Your task to perform on an android device: allow notifications from all sites in the chrome app Image 0: 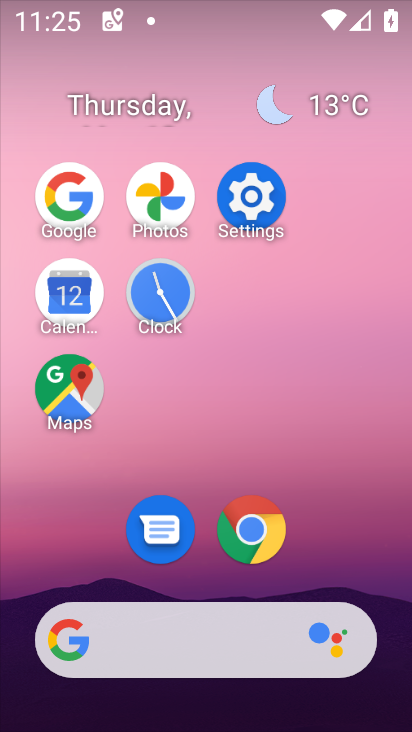
Step 0: click (260, 532)
Your task to perform on an android device: allow notifications from all sites in the chrome app Image 1: 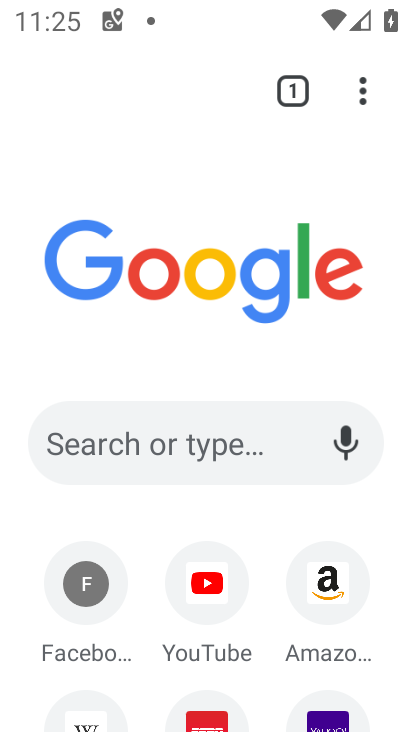
Step 1: click (360, 85)
Your task to perform on an android device: allow notifications from all sites in the chrome app Image 2: 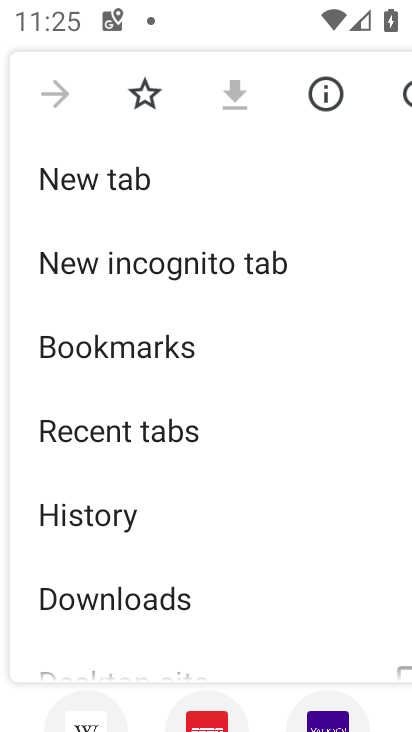
Step 2: drag from (225, 509) to (258, 158)
Your task to perform on an android device: allow notifications from all sites in the chrome app Image 3: 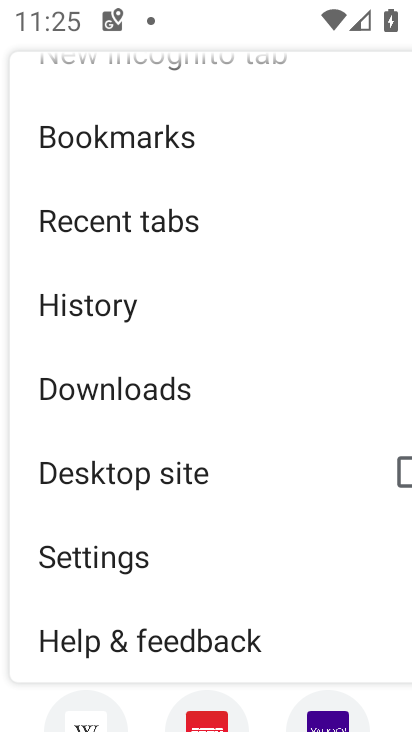
Step 3: click (215, 543)
Your task to perform on an android device: allow notifications from all sites in the chrome app Image 4: 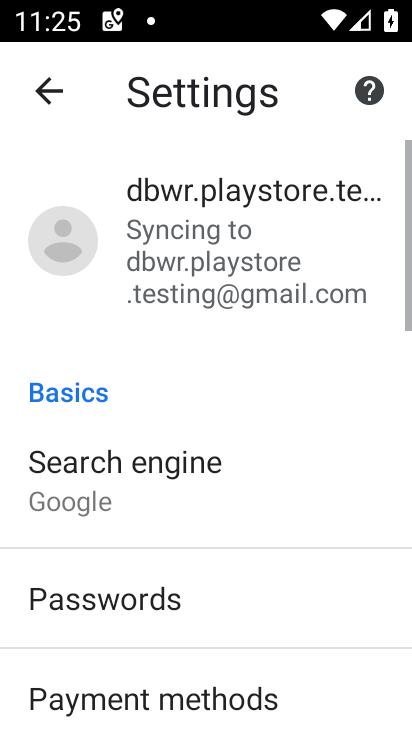
Step 4: drag from (215, 543) to (203, 165)
Your task to perform on an android device: allow notifications from all sites in the chrome app Image 5: 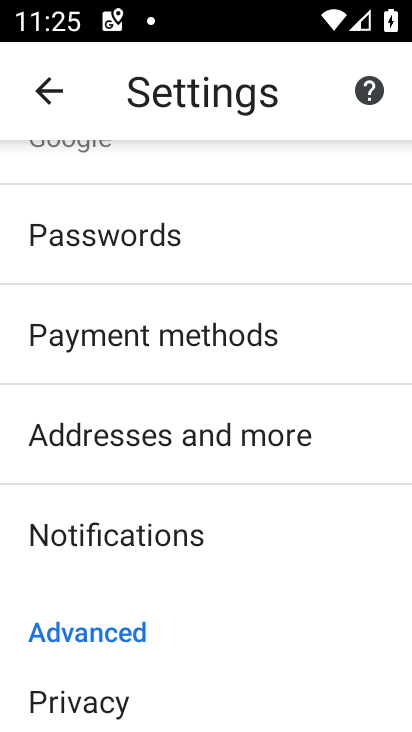
Step 5: click (214, 556)
Your task to perform on an android device: allow notifications from all sites in the chrome app Image 6: 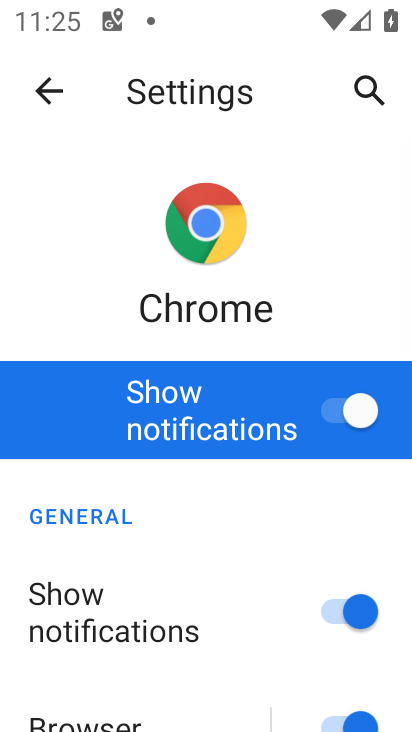
Step 6: task complete